Your task to perform on an android device: open app "Airtel Thanks" (install if not already installed) and go to login screen Image 0: 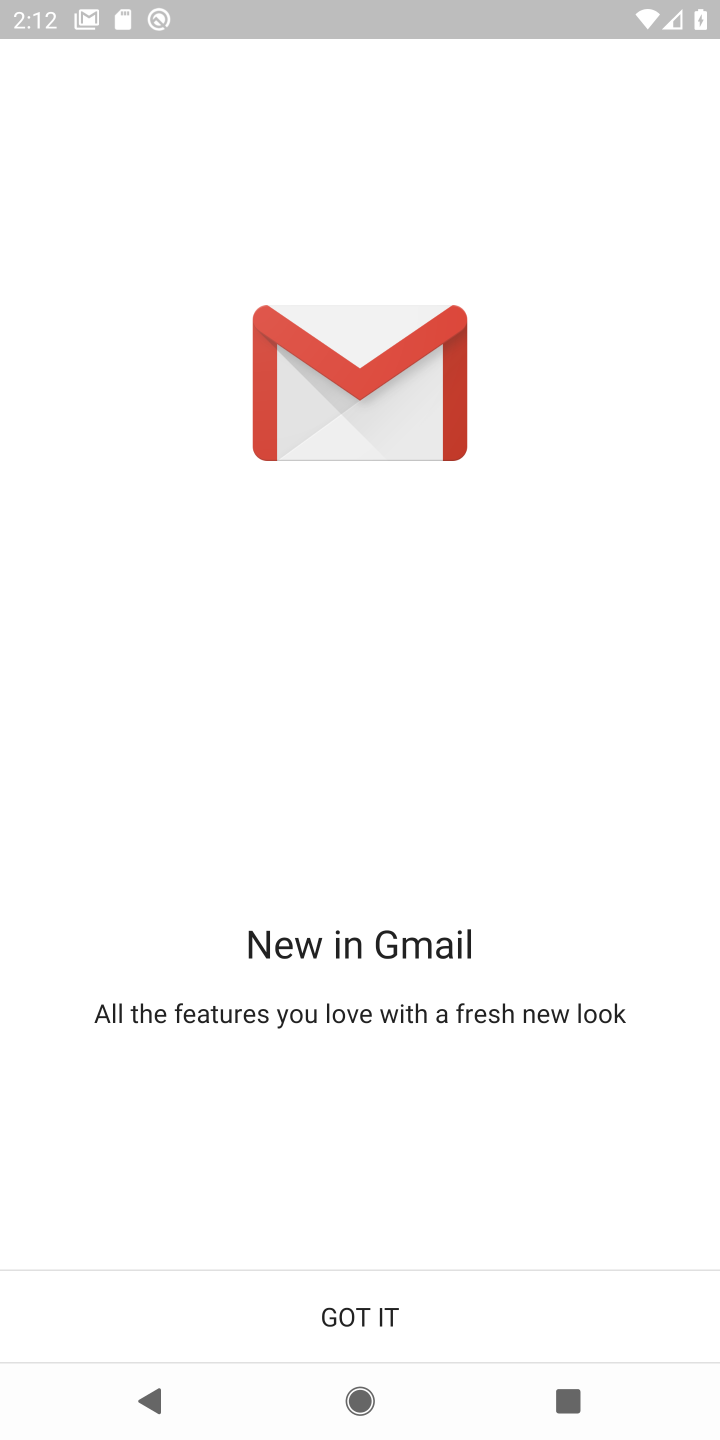
Step 0: press home button
Your task to perform on an android device: open app "Airtel Thanks" (install if not already installed) and go to login screen Image 1: 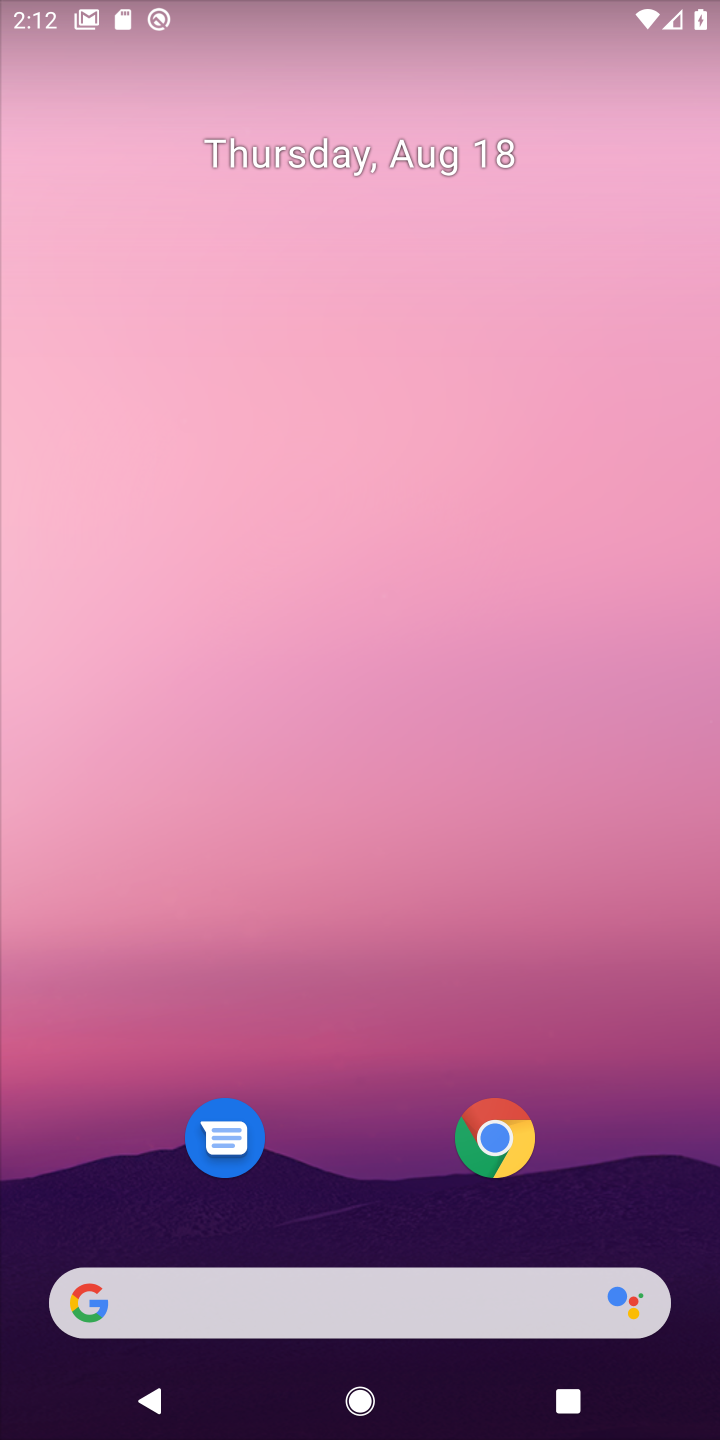
Step 1: drag from (337, 1281) to (397, 380)
Your task to perform on an android device: open app "Airtel Thanks" (install if not already installed) and go to login screen Image 2: 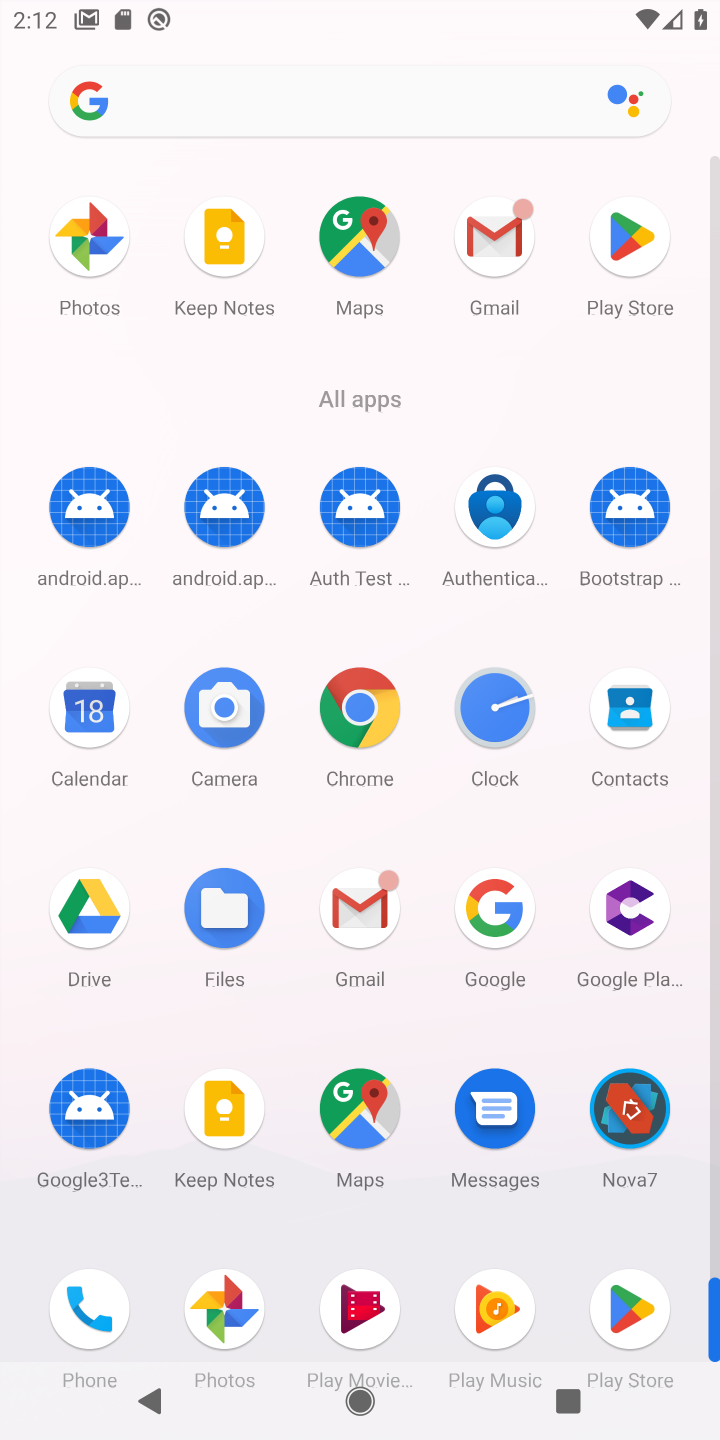
Step 2: click (646, 279)
Your task to perform on an android device: open app "Airtel Thanks" (install if not already installed) and go to login screen Image 3: 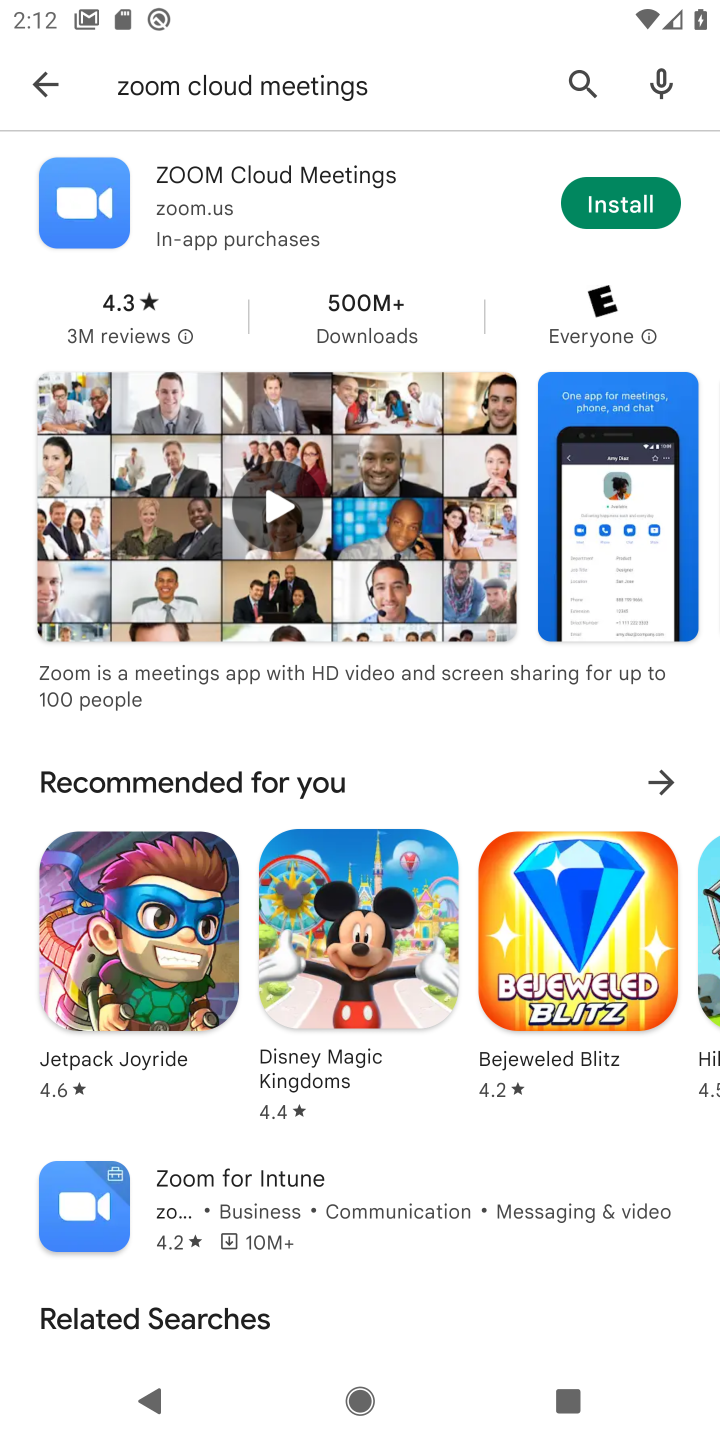
Step 3: click (49, 87)
Your task to perform on an android device: open app "Airtel Thanks" (install if not already installed) and go to login screen Image 4: 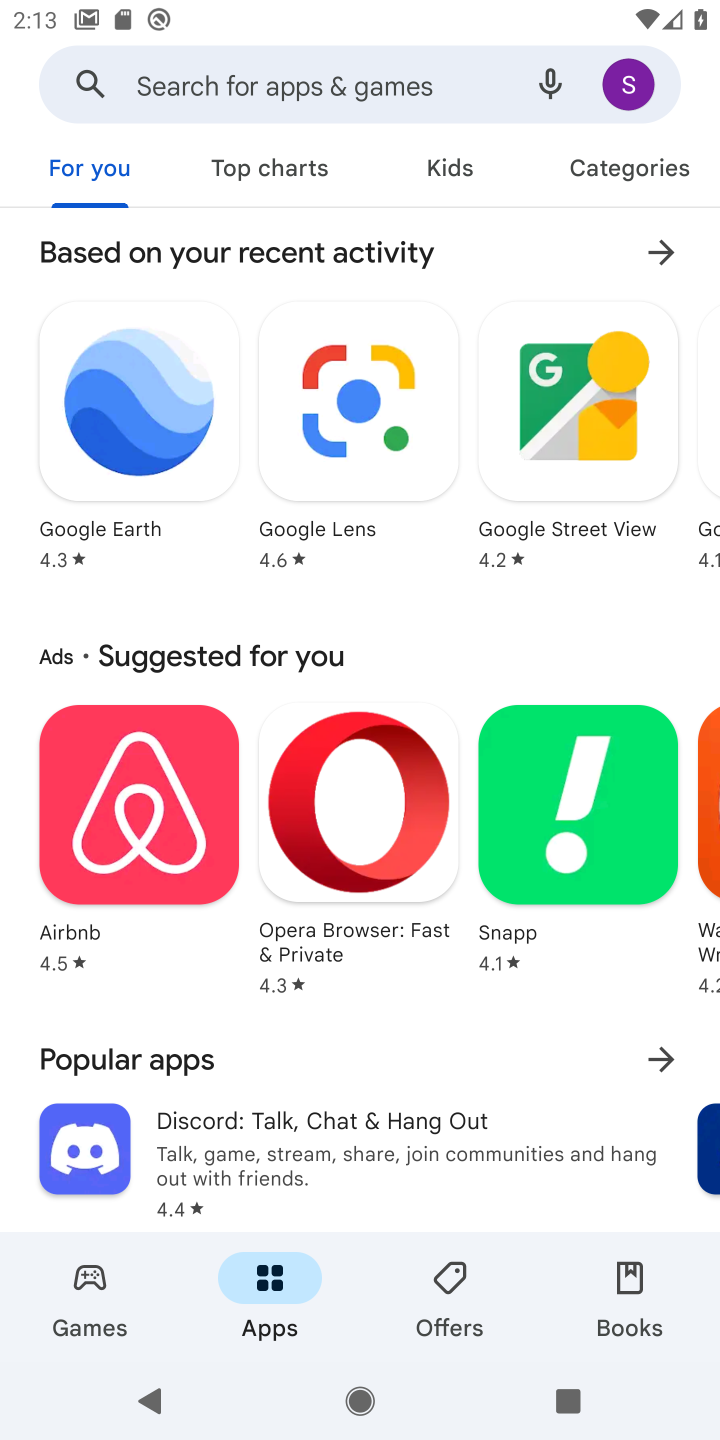
Step 4: click (252, 92)
Your task to perform on an android device: open app "Airtel Thanks" (install if not already installed) and go to login screen Image 5: 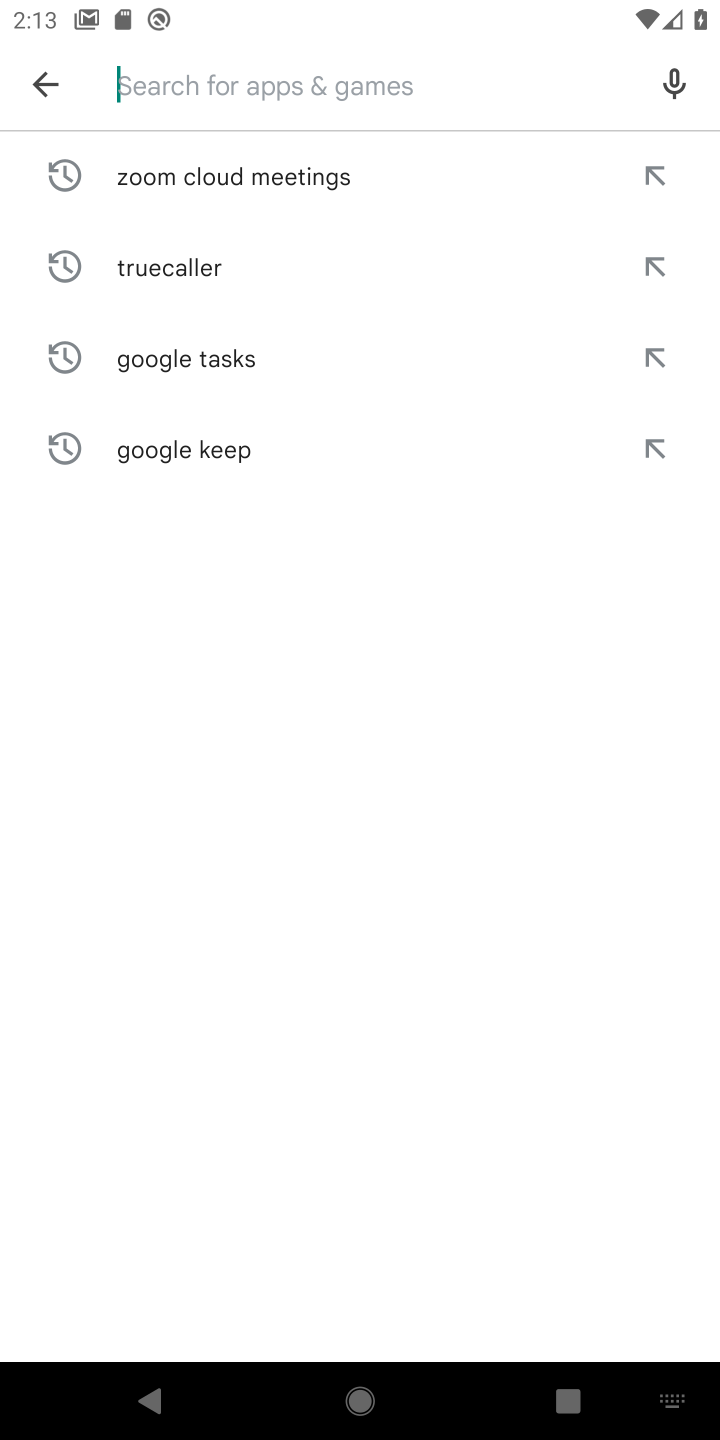
Step 5: type "Airtel Thanks"
Your task to perform on an android device: open app "Airtel Thanks" (install if not already installed) and go to login screen Image 6: 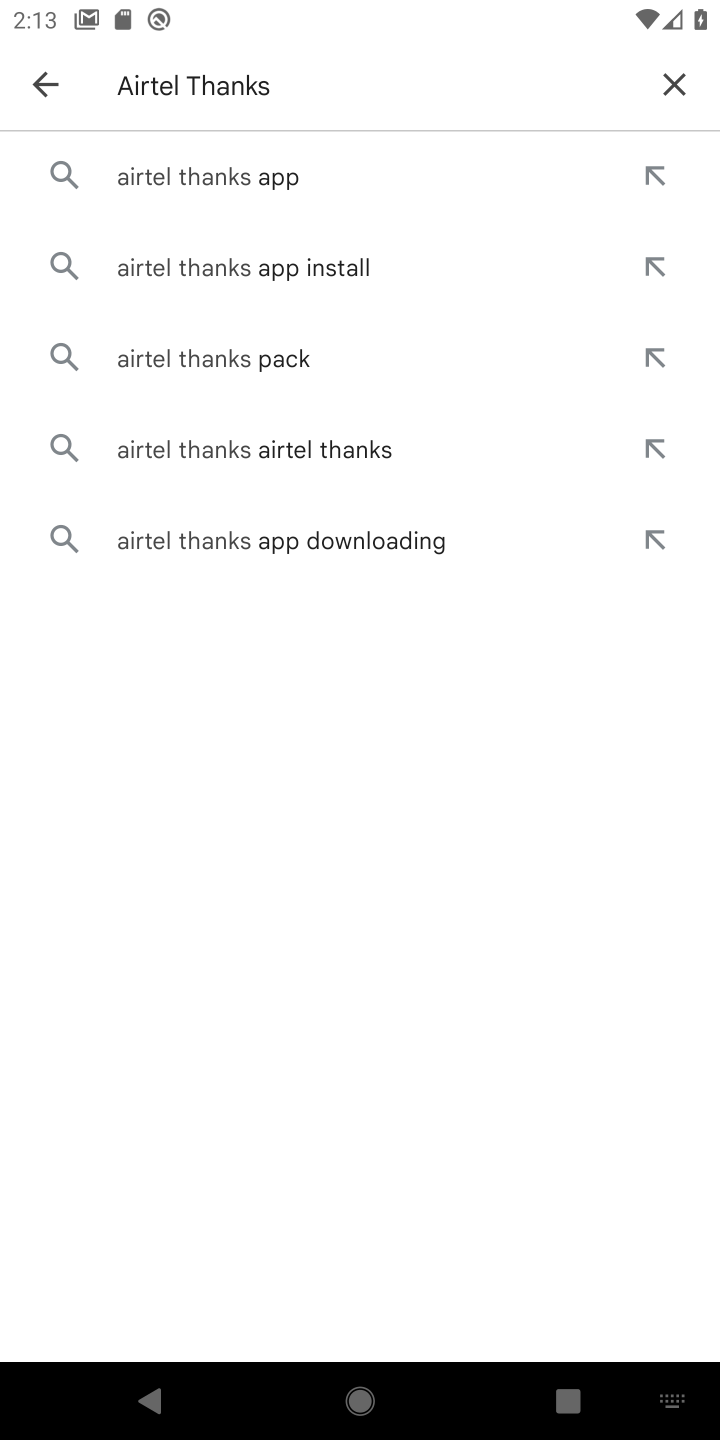
Step 6: click (289, 159)
Your task to perform on an android device: open app "Airtel Thanks" (install if not already installed) and go to login screen Image 7: 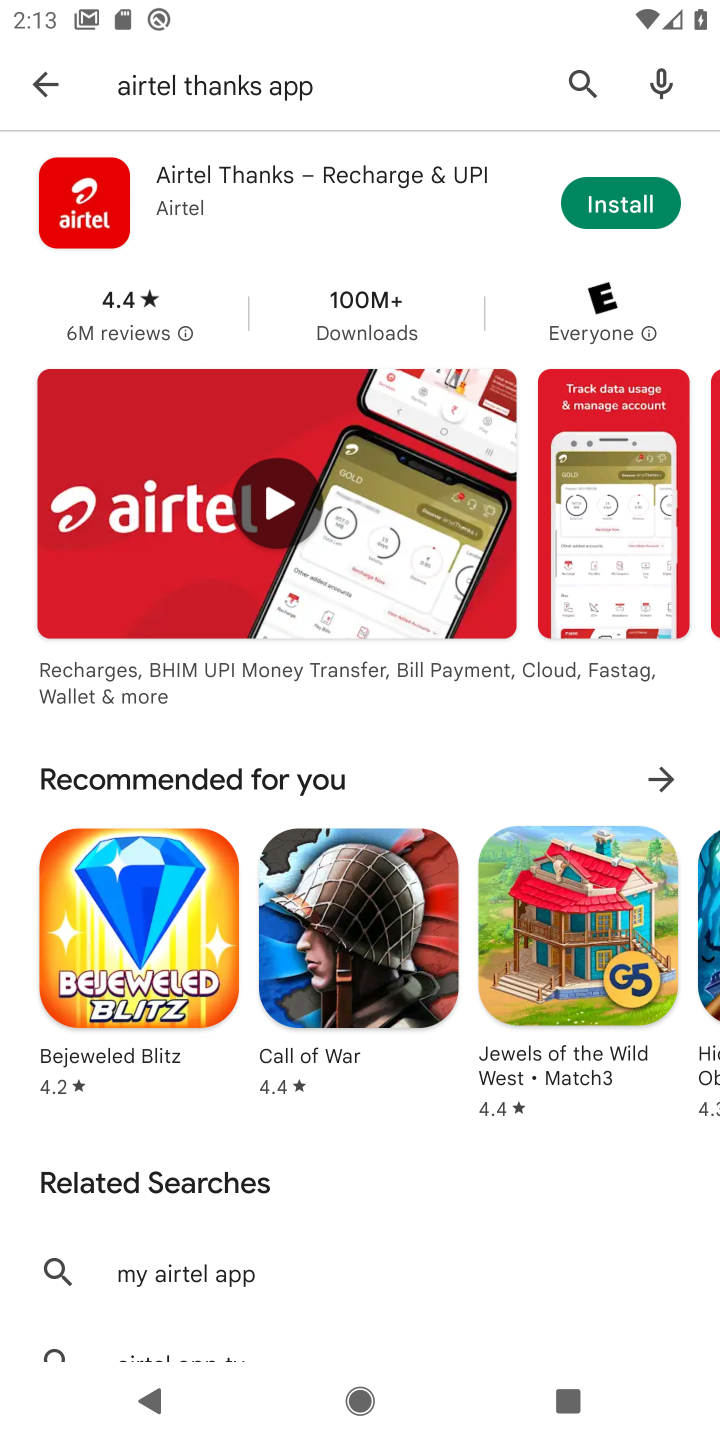
Step 7: click (657, 199)
Your task to perform on an android device: open app "Airtel Thanks" (install if not already installed) and go to login screen Image 8: 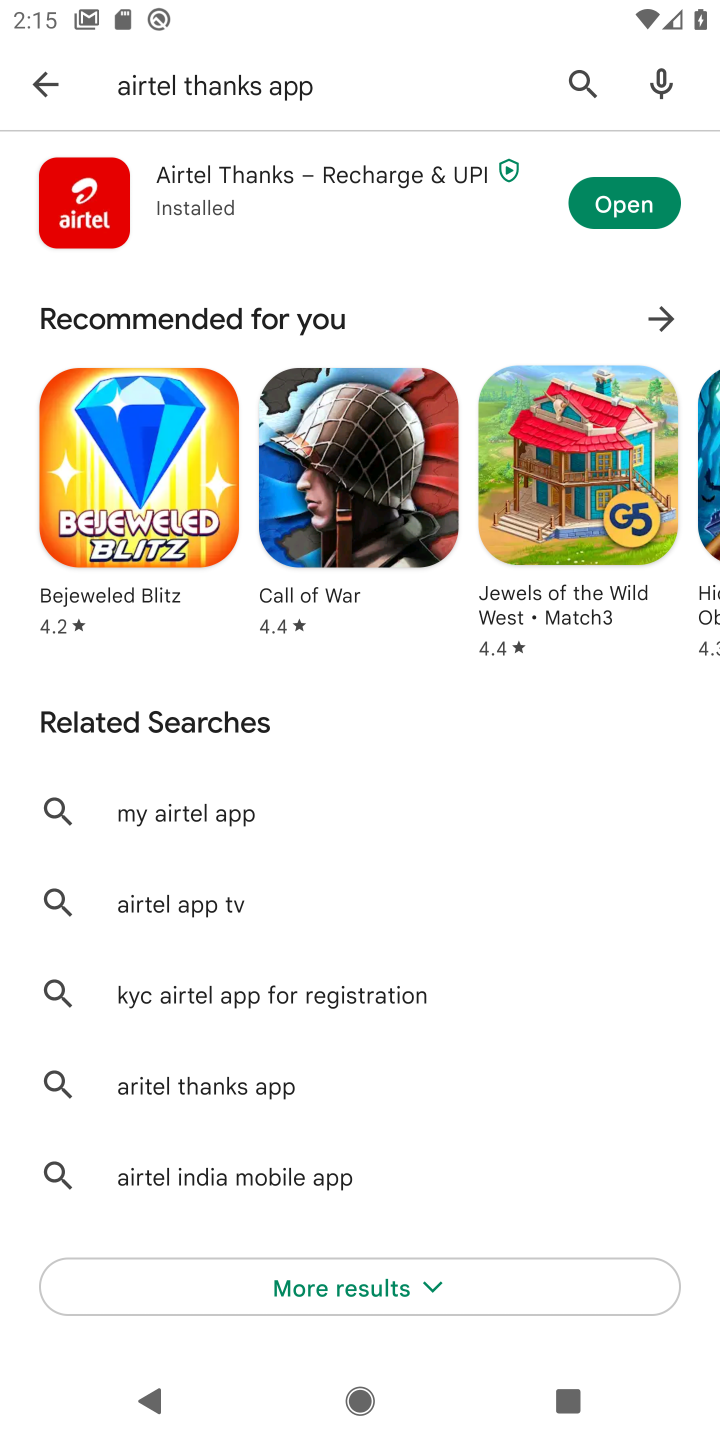
Step 8: click (643, 208)
Your task to perform on an android device: open app "Airtel Thanks" (install if not already installed) and go to login screen Image 9: 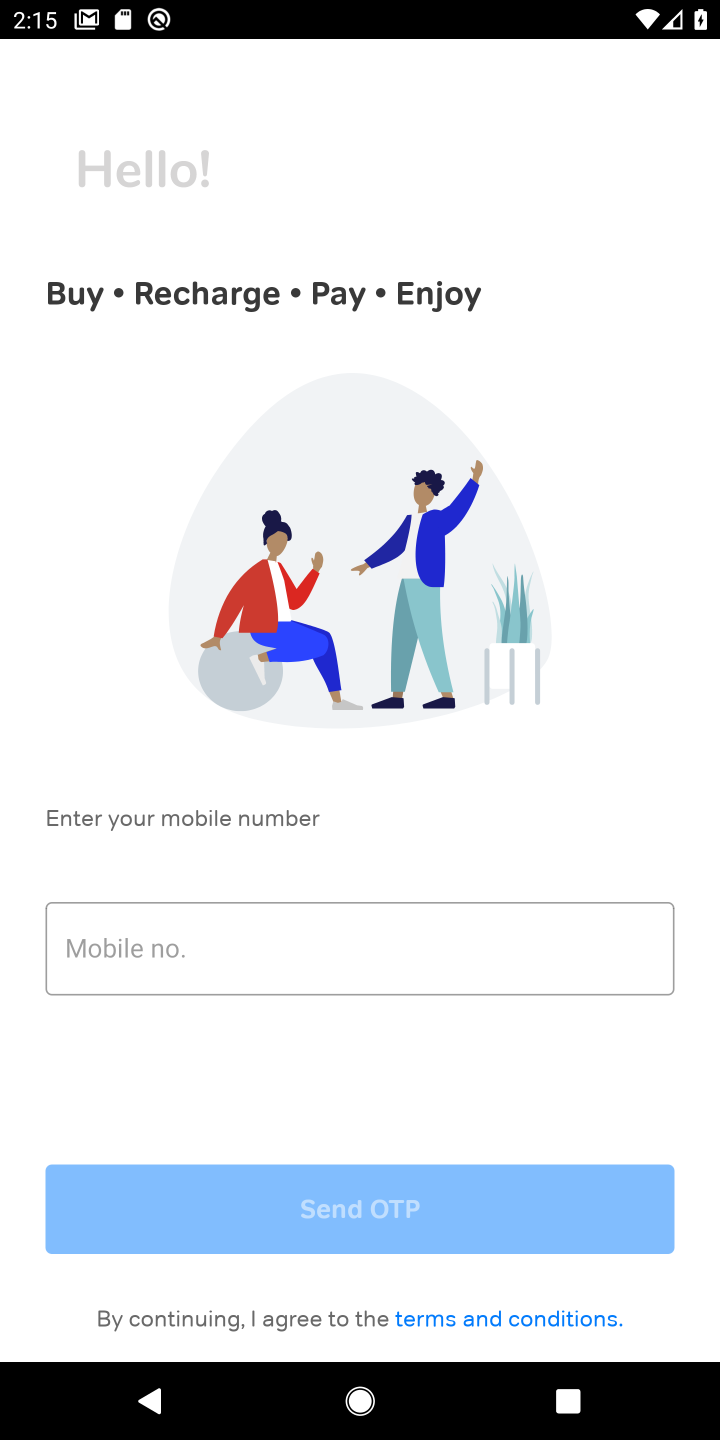
Step 9: task complete